Your task to perform on an android device: open chrome and create a bookmark for the current page Image 0: 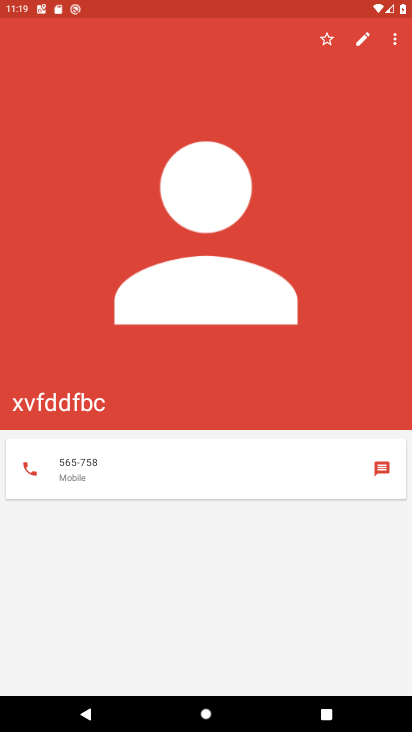
Step 0: press home button
Your task to perform on an android device: open chrome and create a bookmark for the current page Image 1: 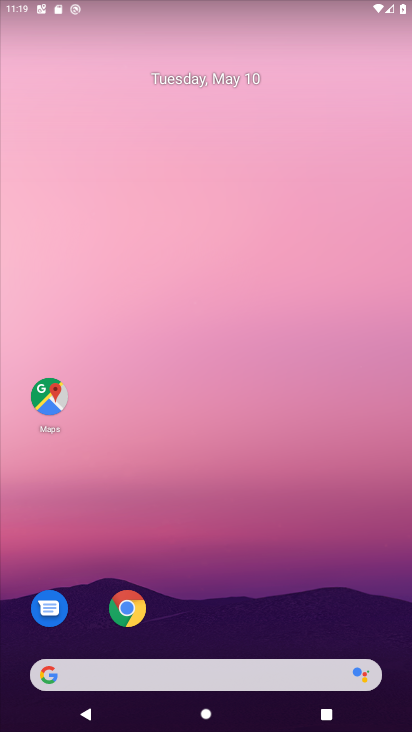
Step 1: click (140, 617)
Your task to perform on an android device: open chrome and create a bookmark for the current page Image 2: 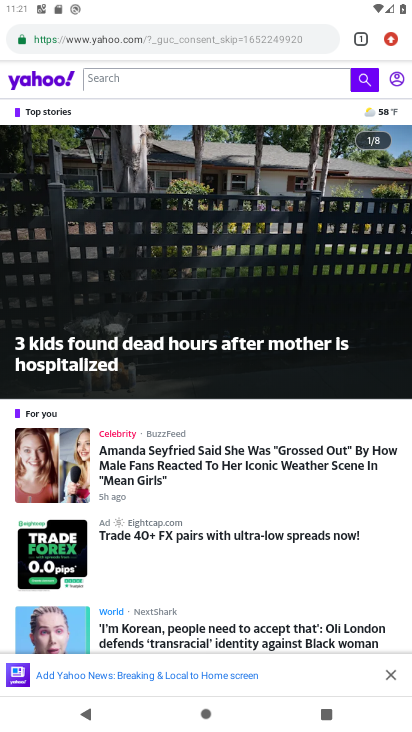
Step 2: click (390, 43)
Your task to perform on an android device: open chrome and create a bookmark for the current page Image 3: 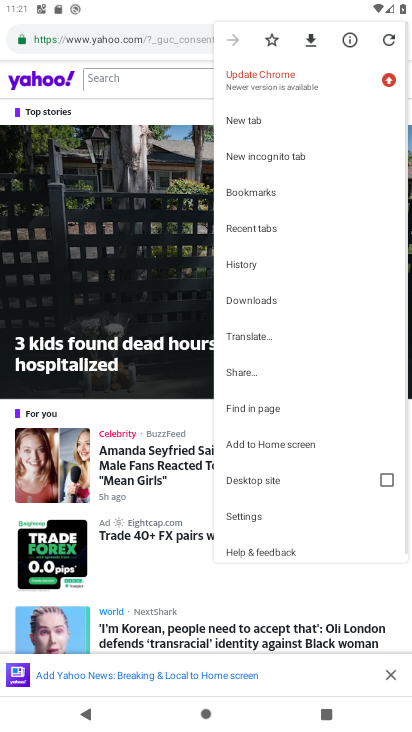
Step 3: click (259, 35)
Your task to perform on an android device: open chrome and create a bookmark for the current page Image 4: 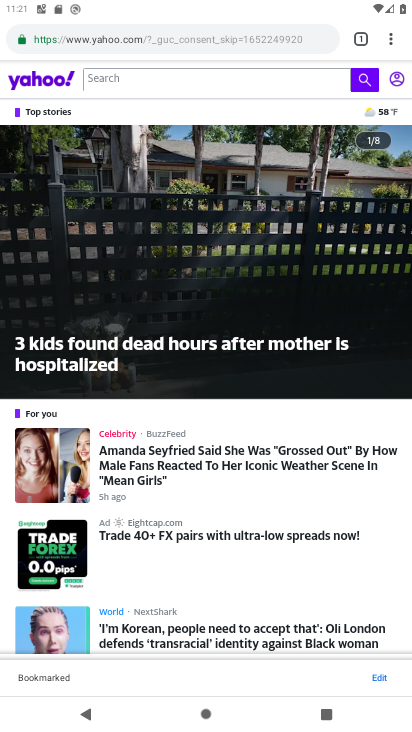
Step 4: task complete